Your task to perform on an android device: turn on improve location accuracy Image 0: 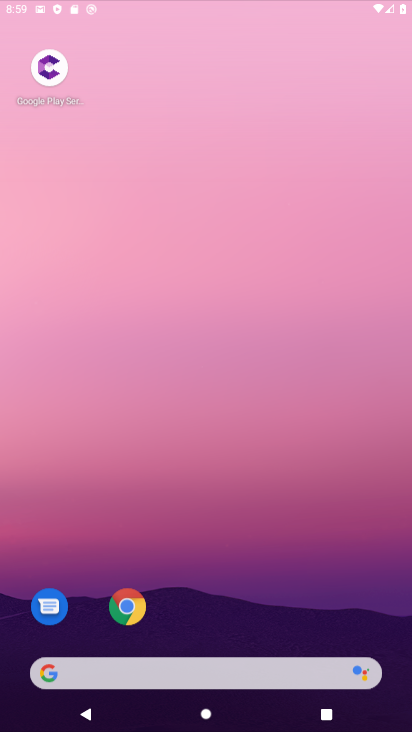
Step 0: press home button
Your task to perform on an android device: turn on improve location accuracy Image 1: 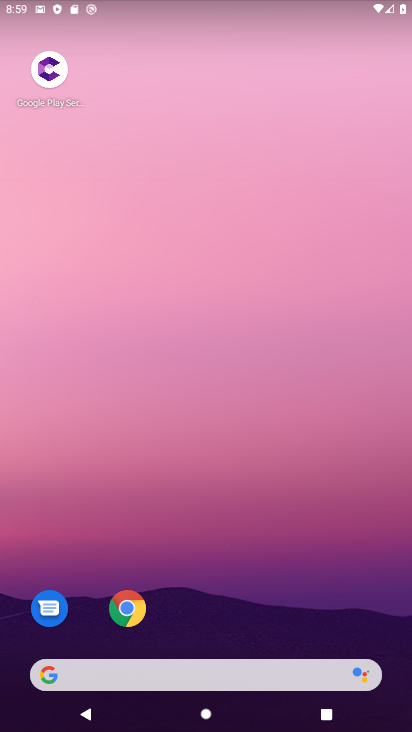
Step 1: drag from (287, 691) to (262, 32)
Your task to perform on an android device: turn on improve location accuracy Image 2: 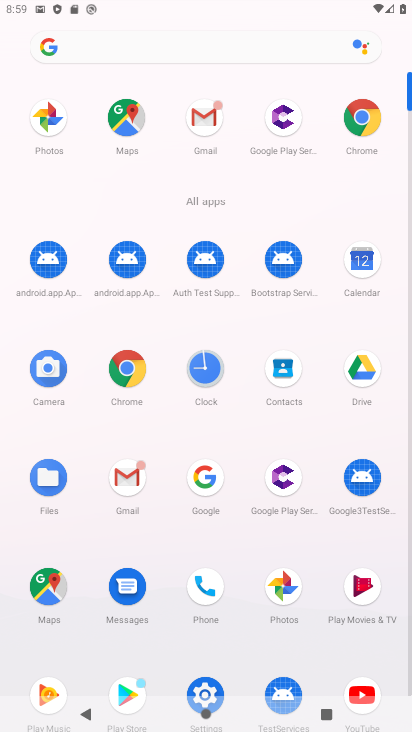
Step 2: click (215, 119)
Your task to perform on an android device: turn on improve location accuracy Image 3: 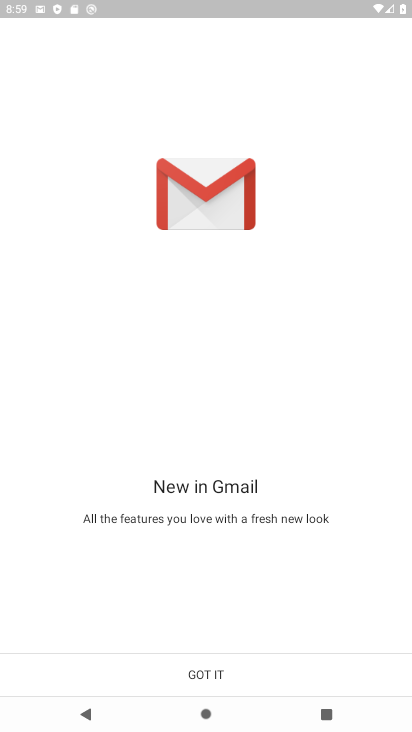
Step 3: click (266, 679)
Your task to perform on an android device: turn on improve location accuracy Image 4: 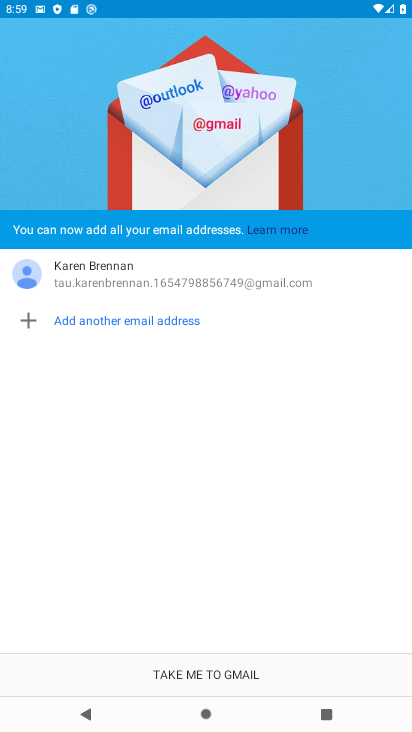
Step 4: press home button
Your task to perform on an android device: turn on improve location accuracy Image 5: 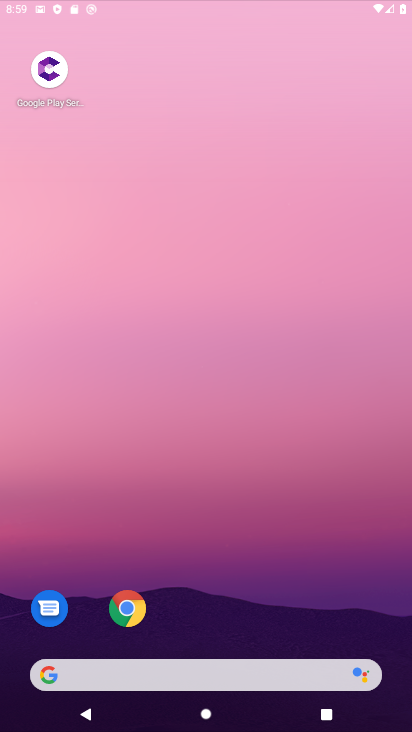
Step 5: click (249, 43)
Your task to perform on an android device: turn on improve location accuracy Image 6: 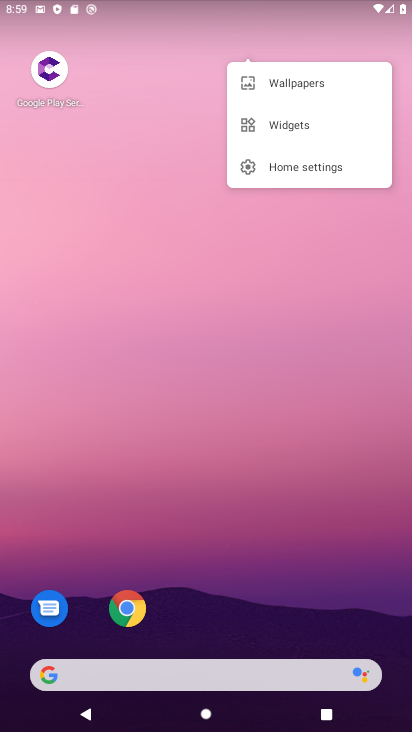
Step 6: click (203, 188)
Your task to perform on an android device: turn on improve location accuracy Image 7: 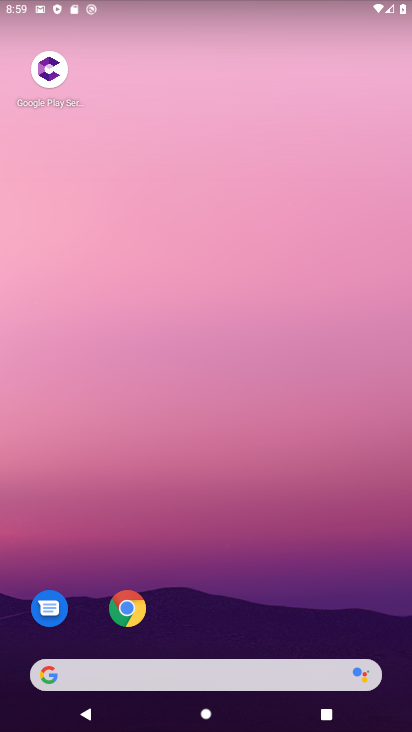
Step 7: drag from (220, 671) to (255, 123)
Your task to perform on an android device: turn on improve location accuracy Image 8: 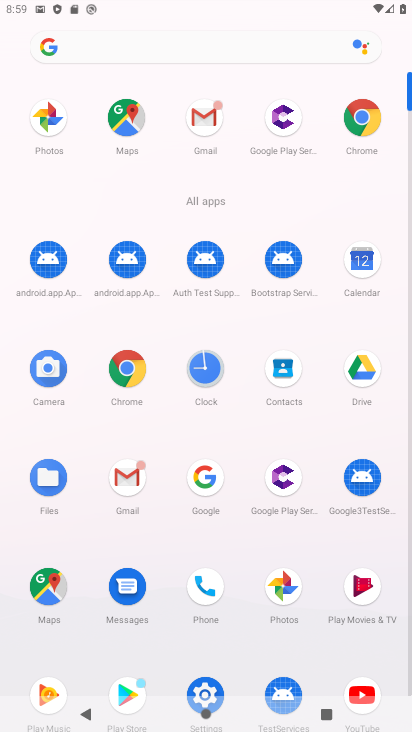
Step 8: click (206, 690)
Your task to perform on an android device: turn on improve location accuracy Image 9: 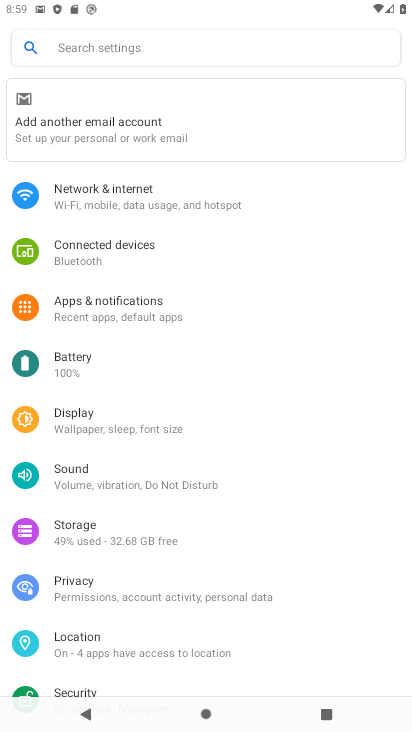
Step 9: click (94, 638)
Your task to perform on an android device: turn on improve location accuracy Image 10: 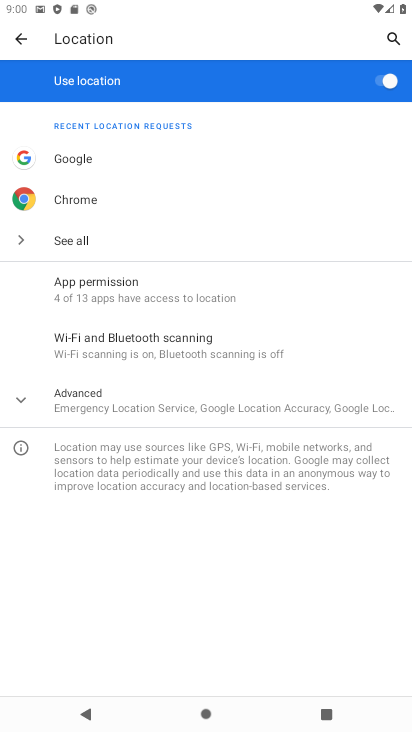
Step 10: click (126, 401)
Your task to perform on an android device: turn on improve location accuracy Image 11: 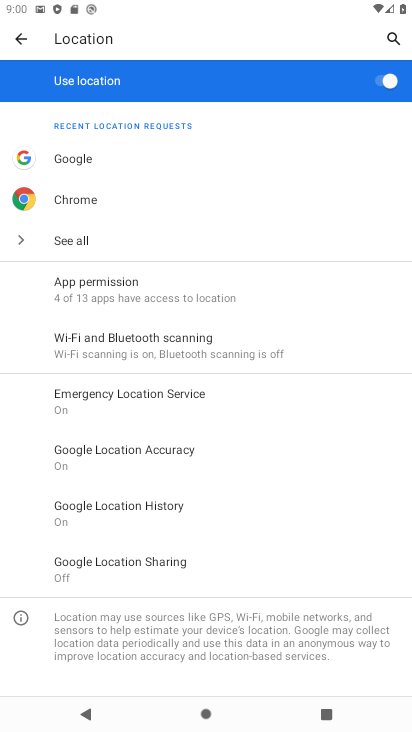
Step 11: click (150, 448)
Your task to perform on an android device: turn on improve location accuracy Image 12: 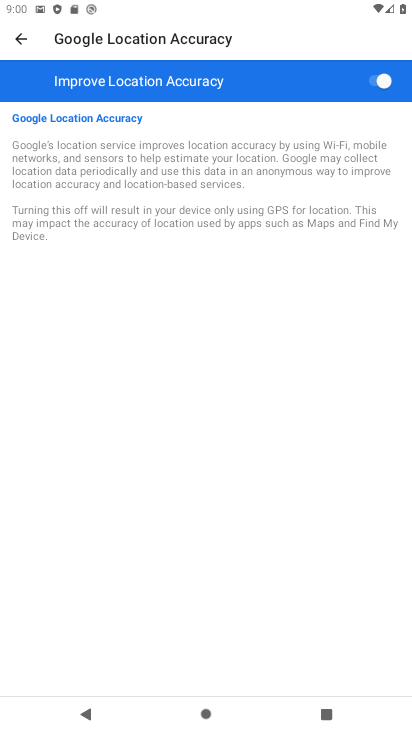
Step 12: task complete